Your task to perform on an android device: Open privacy settings Image 0: 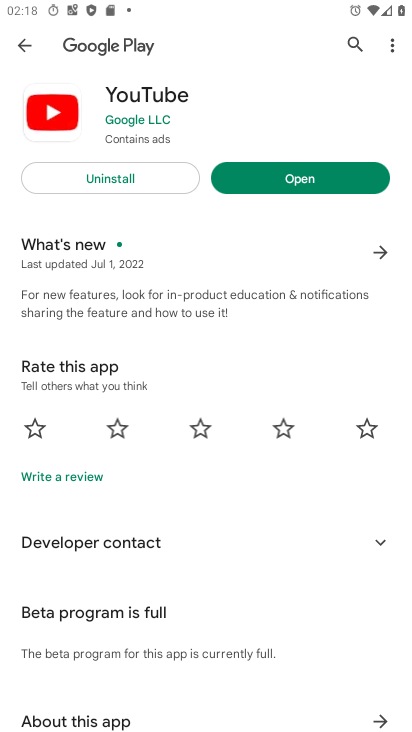
Step 0: press home button
Your task to perform on an android device: Open privacy settings Image 1: 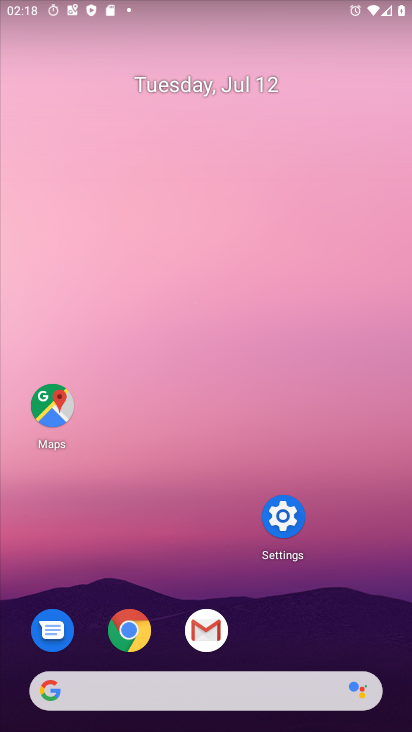
Step 1: click (279, 525)
Your task to perform on an android device: Open privacy settings Image 2: 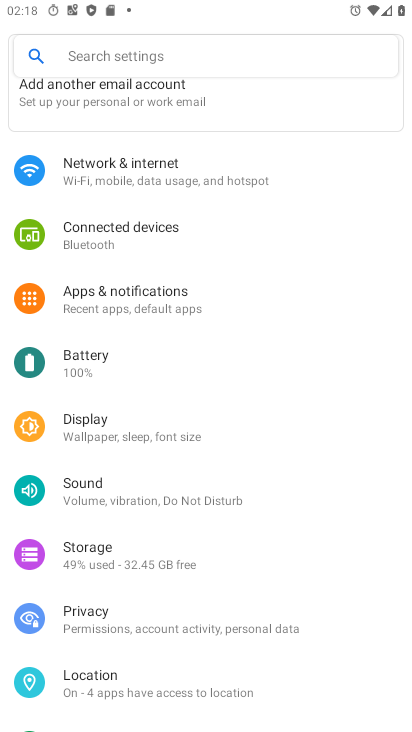
Step 2: click (108, 609)
Your task to perform on an android device: Open privacy settings Image 3: 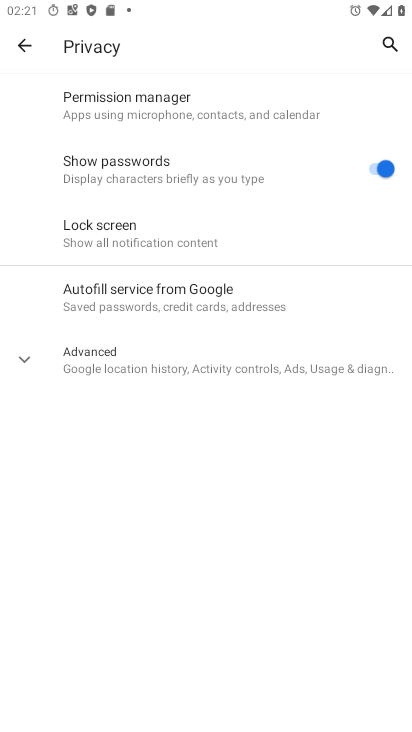
Step 3: task complete